Your task to perform on an android device: turn on priority inbox in the gmail app Image 0: 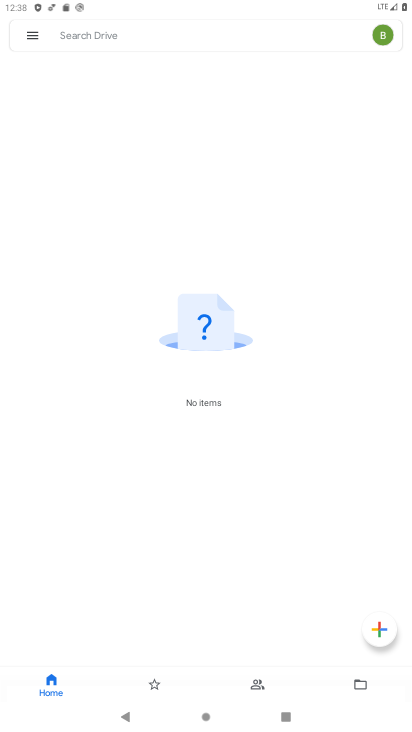
Step 0: press home button
Your task to perform on an android device: turn on priority inbox in the gmail app Image 1: 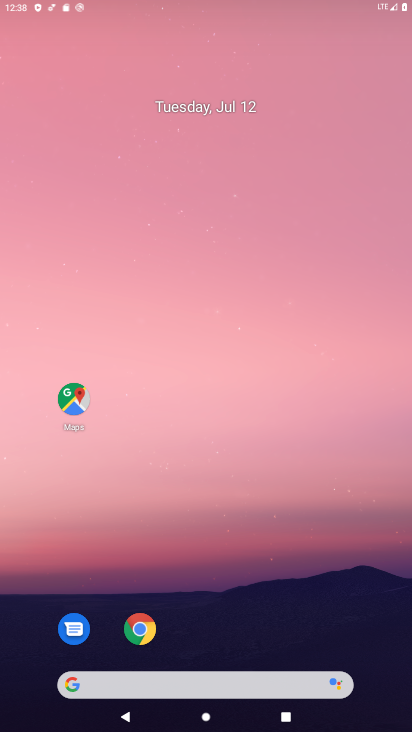
Step 1: drag from (268, 666) to (298, 8)
Your task to perform on an android device: turn on priority inbox in the gmail app Image 2: 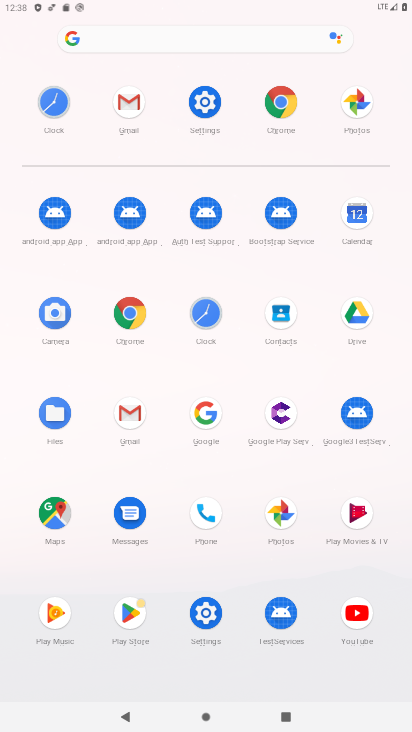
Step 2: click (119, 411)
Your task to perform on an android device: turn on priority inbox in the gmail app Image 3: 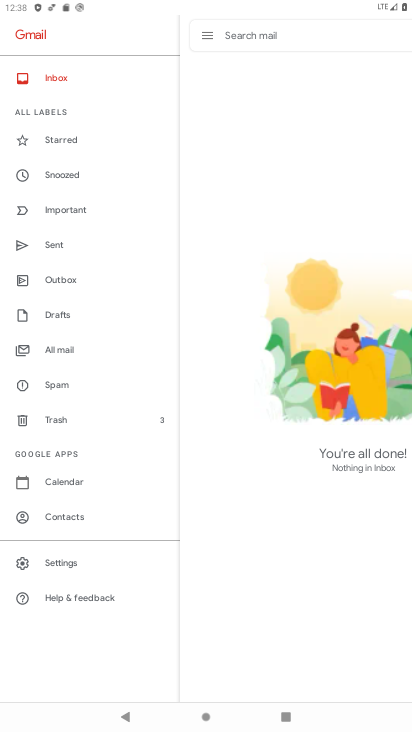
Step 3: click (78, 561)
Your task to perform on an android device: turn on priority inbox in the gmail app Image 4: 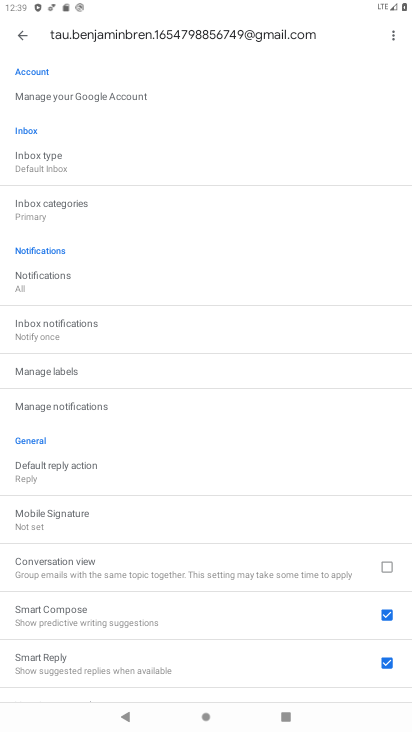
Step 4: drag from (53, 158) to (48, 544)
Your task to perform on an android device: turn on priority inbox in the gmail app Image 5: 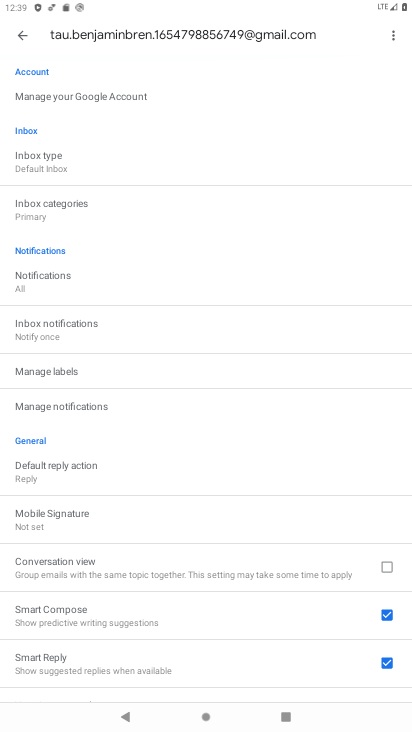
Step 5: click (78, 170)
Your task to perform on an android device: turn on priority inbox in the gmail app Image 6: 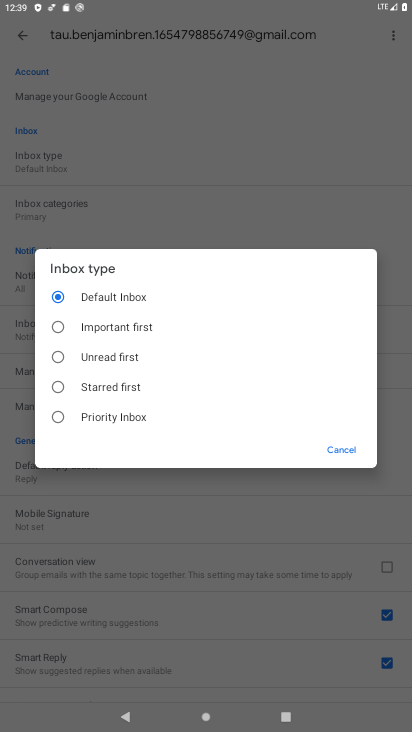
Step 6: click (55, 413)
Your task to perform on an android device: turn on priority inbox in the gmail app Image 7: 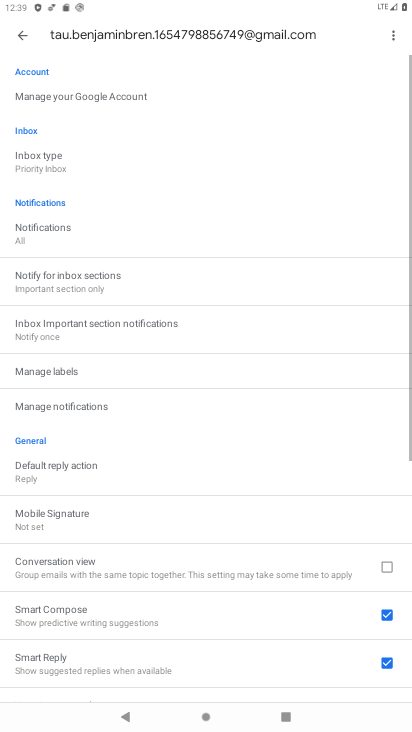
Step 7: task complete